Your task to perform on an android device: Search for pizza restaurants on Maps Image 0: 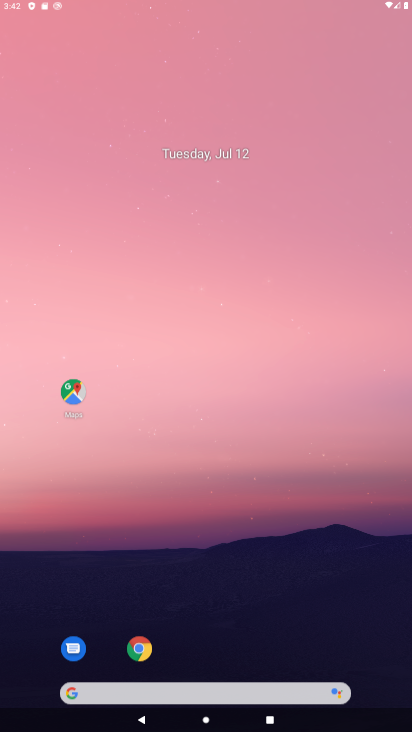
Step 0: press home button
Your task to perform on an android device: Search for pizza restaurants on Maps Image 1: 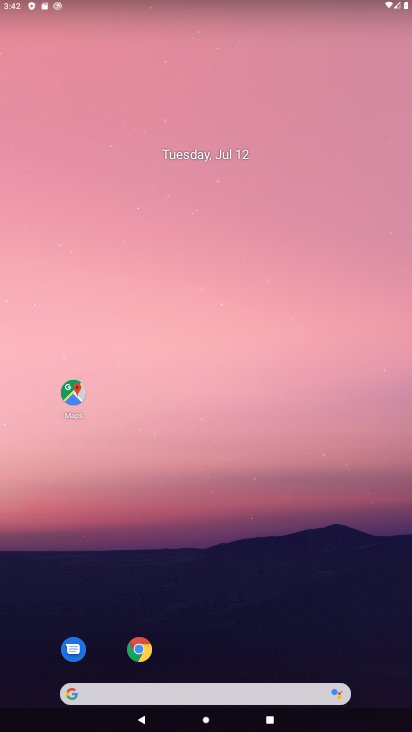
Step 1: click (70, 389)
Your task to perform on an android device: Search for pizza restaurants on Maps Image 2: 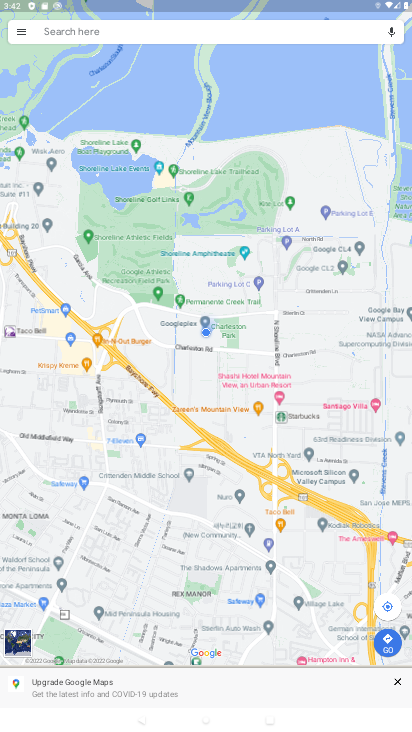
Step 2: click (93, 25)
Your task to perform on an android device: Search for pizza restaurants on Maps Image 3: 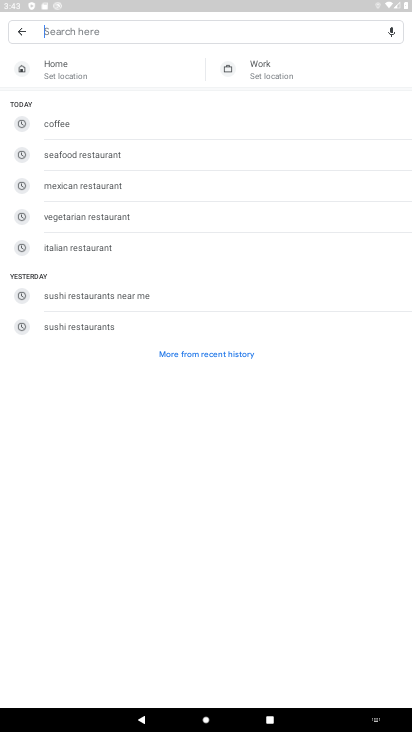
Step 3: type "pizza"
Your task to perform on an android device: Search for pizza restaurants on Maps Image 4: 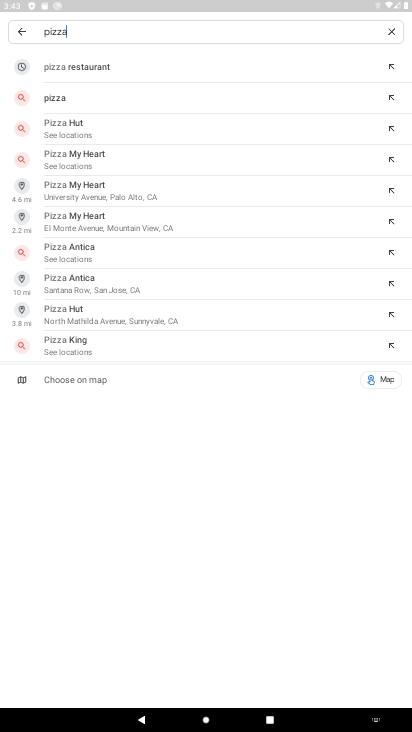
Step 4: click (93, 65)
Your task to perform on an android device: Search for pizza restaurants on Maps Image 5: 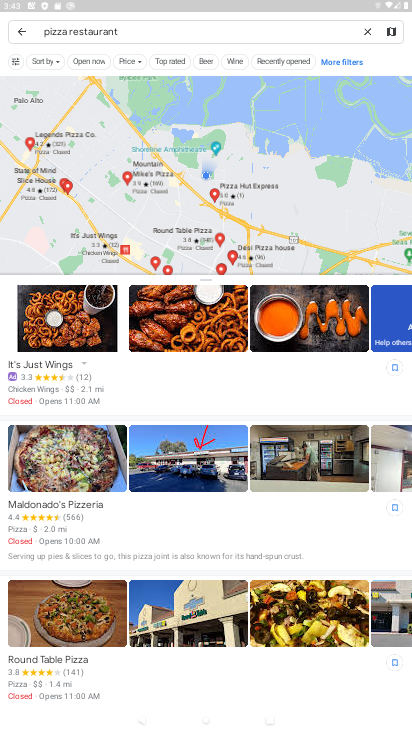
Step 5: task complete